Your task to perform on an android device: turn vacation reply on in the gmail app Image 0: 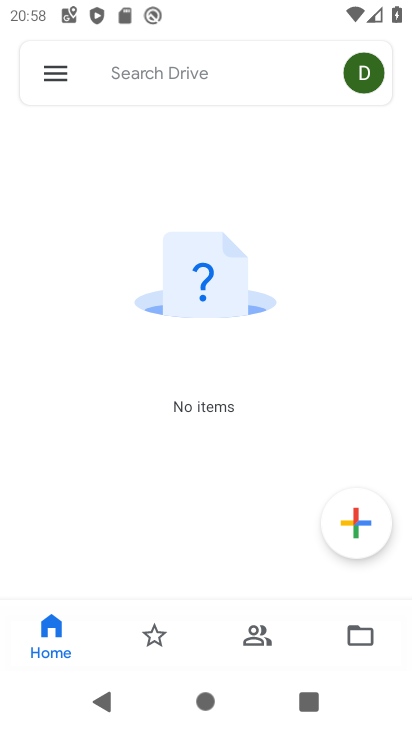
Step 0: press home button
Your task to perform on an android device: turn vacation reply on in the gmail app Image 1: 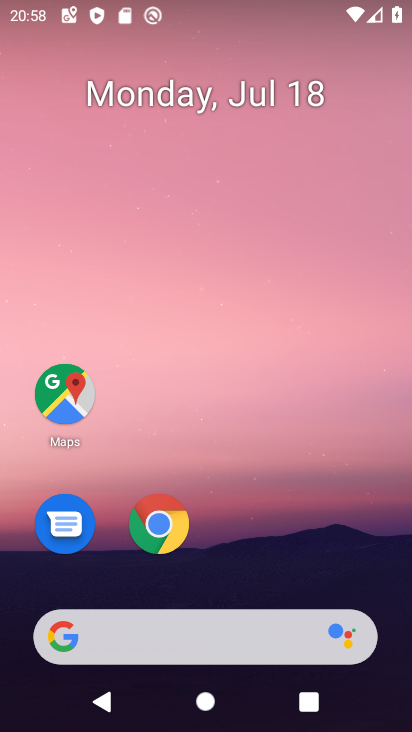
Step 1: drag from (287, 544) to (286, 5)
Your task to perform on an android device: turn vacation reply on in the gmail app Image 2: 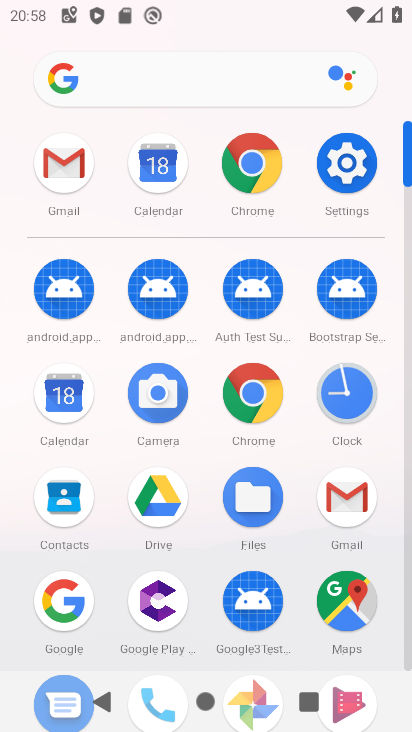
Step 2: click (54, 169)
Your task to perform on an android device: turn vacation reply on in the gmail app Image 3: 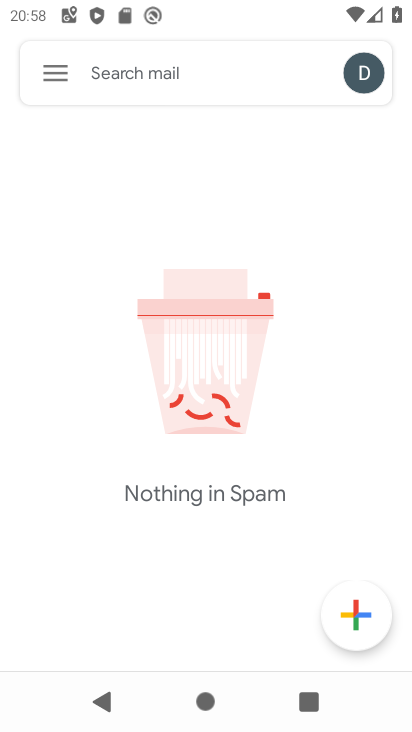
Step 3: click (55, 73)
Your task to perform on an android device: turn vacation reply on in the gmail app Image 4: 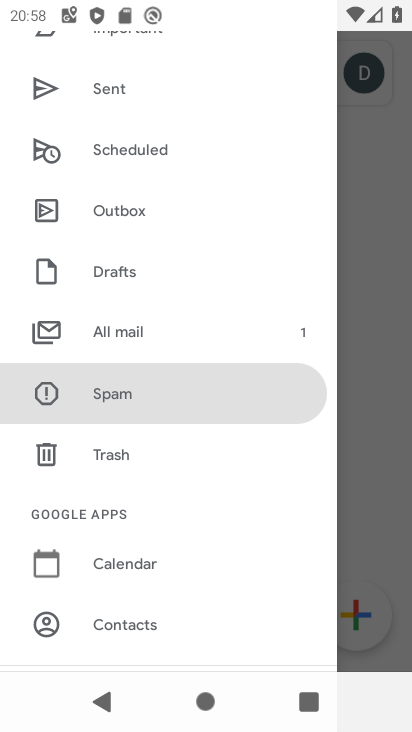
Step 4: drag from (155, 544) to (238, 313)
Your task to perform on an android device: turn vacation reply on in the gmail app Image 5: 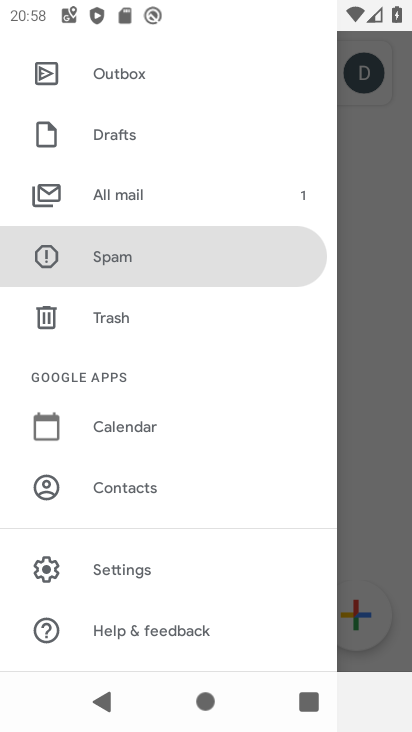
Step 5: click (126, 566)
Your task to perform on an android device: turn vacation reply on in the gmail app Image 6: 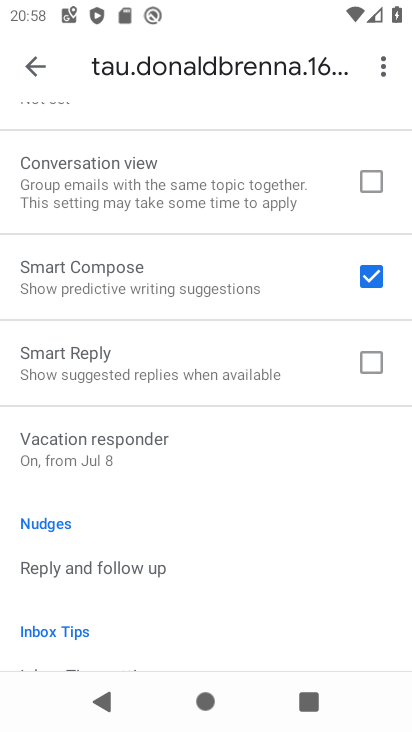
Step 6: drag from (235, 526) to (248, 356)
Your task to perform on an android device: turn vacation reply on in the gmail app Image 7: 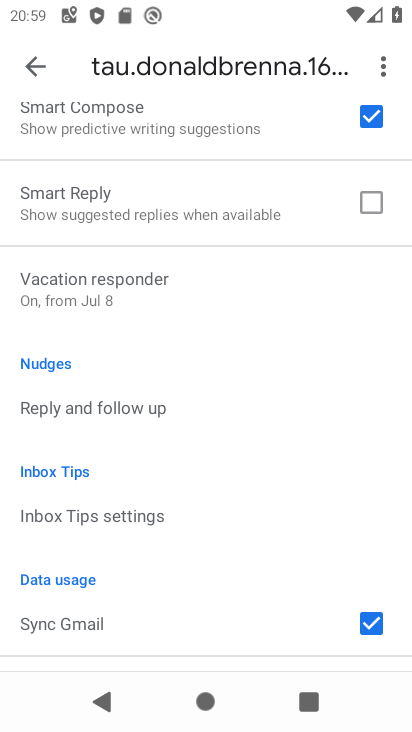
Step 7: click (207, 300)
Your task to perform on an android device: turn vacation reply on in the gmail app Image 8: 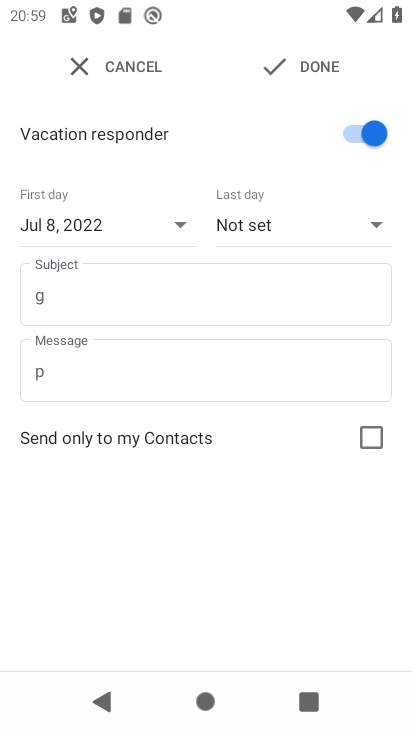
Step 8: task complete